Your task to perform on an android device: Search for sushi restaurants on Maps Image 0: 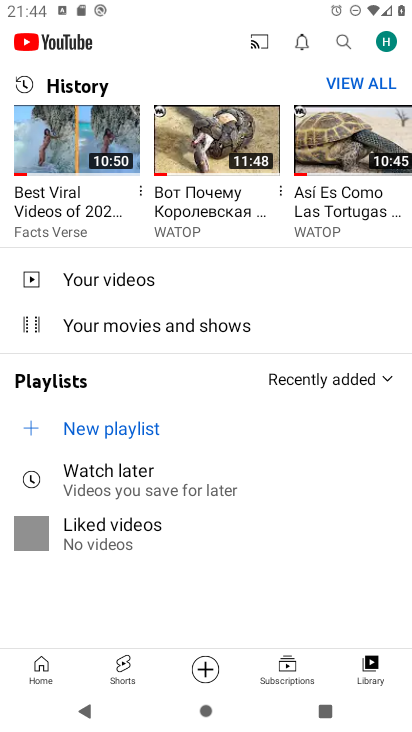
Step 0: press home button
Your task to perform on an android device: Search for sushi restaurants on Maps Image 1: 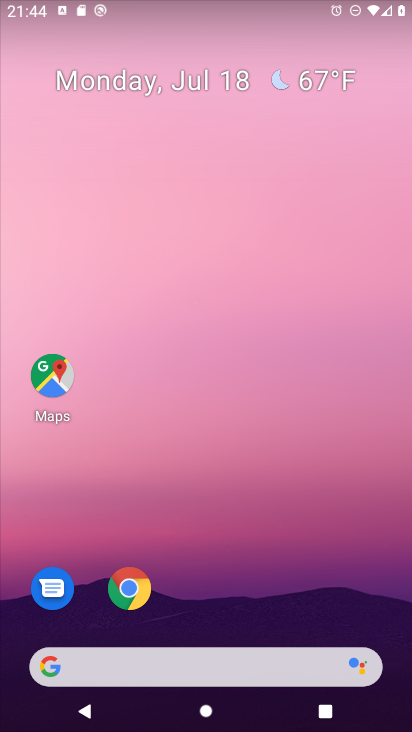
Step 1: click (48, 378)
Your task to perform on an android device: Search for sushi restaurants on Maps Image 2: 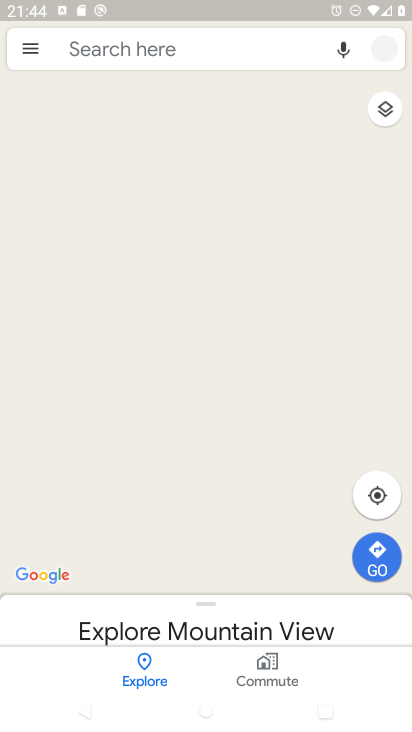
Step 2: click (115, 45)
Your task to perform on an android device: Search for sushi restaurants on Maps Image 3: 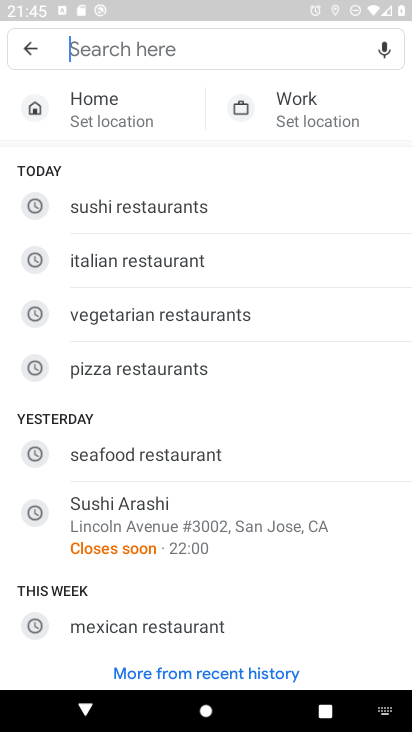
Step 3: type "sushi restaurants"
Your task to perform on an android device: Search for sushi restaurants on Maps Image 4: 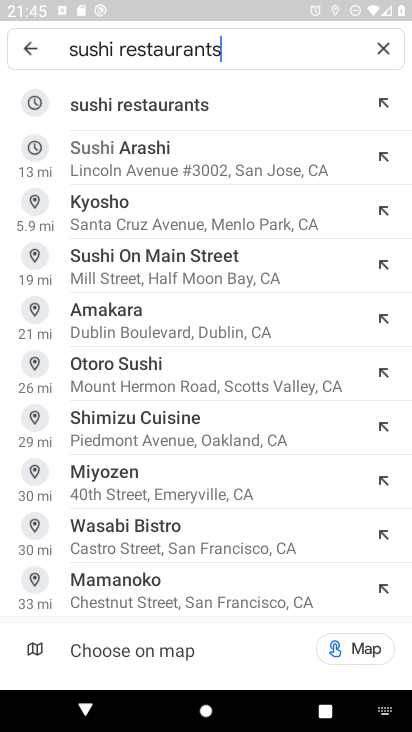
Step 4: click (143, 109)
Your task to perform on an android device: Search for sushi restaurants on Maps Image 5: 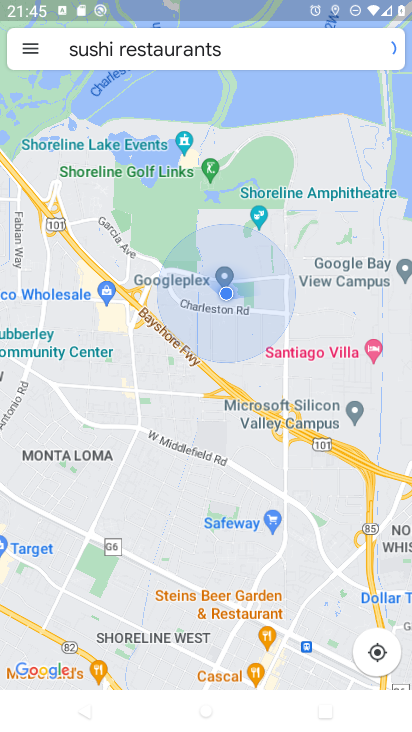
Step 5: task complete